Your task to perform on an android device: toggle pop-ups in chrome Image 0: 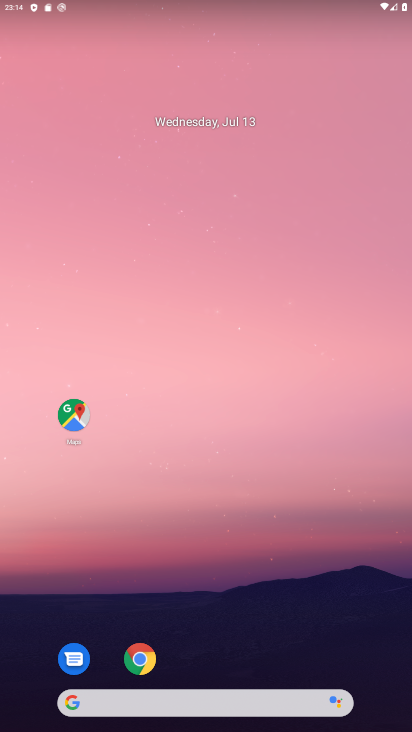
Step 0: click (140, 663)
Your task to perform on an android device: toggle pop-ups in chrome Image 1: 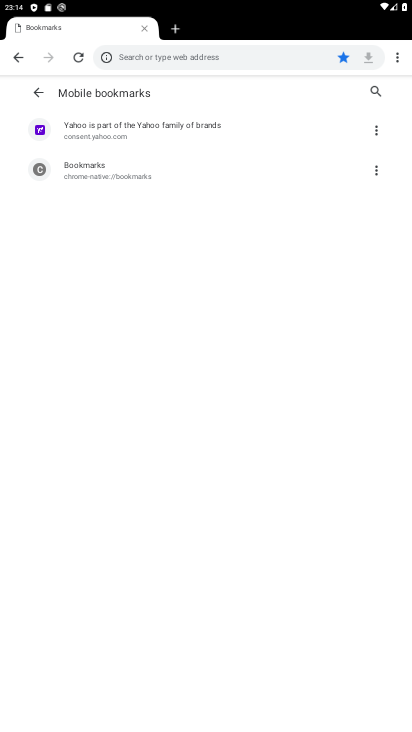
Step 1: click (397, 60)
Your task to perform on an android device: toggle pop-ups in chrome Image 2: 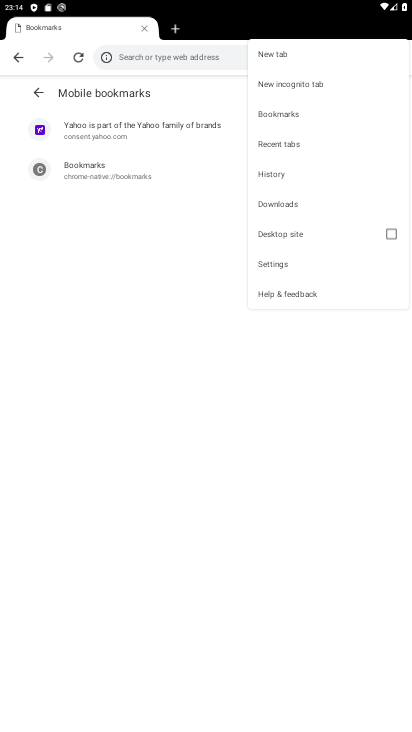
Step 2: click (278, 257)
Your task to perform on an android device: toggle pop-ups in chrome Image 3: 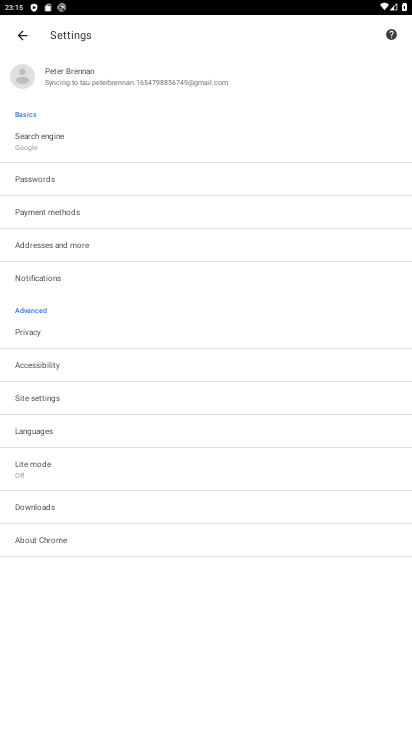
Step 3: click (28, 402)
Your task to perform on an android device: toggle pop-ups in chrome Image 4: 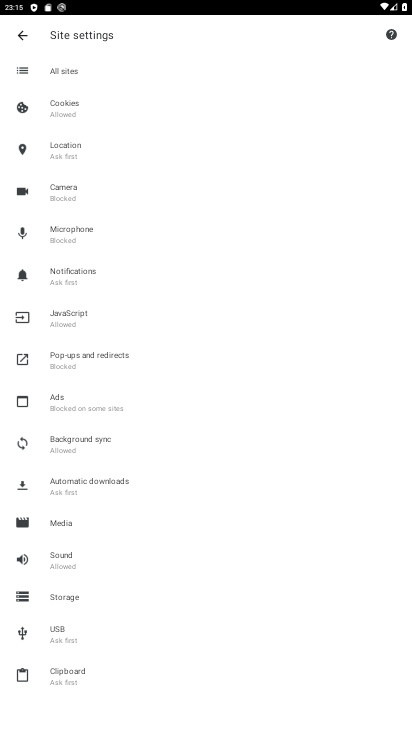
Step 4: click (68, 362)
Your task to perform on an android device: toggle pop-ups in chrome Image 5: 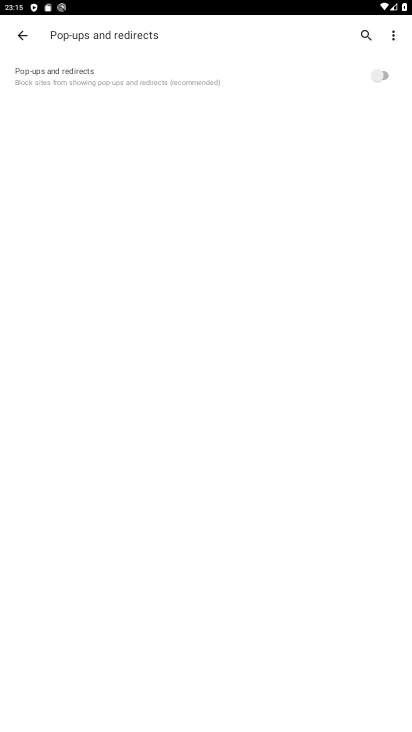
Step 5: click (381, 75)
Your task to perform on an android device: toggle pop-ups in chrome Image 6: 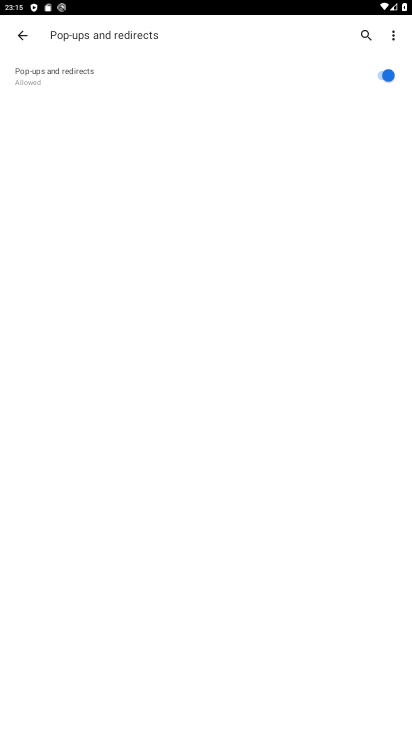
Step 6: task complete